Your task to perform on an android device: turn off picture-in-picture Image 0: 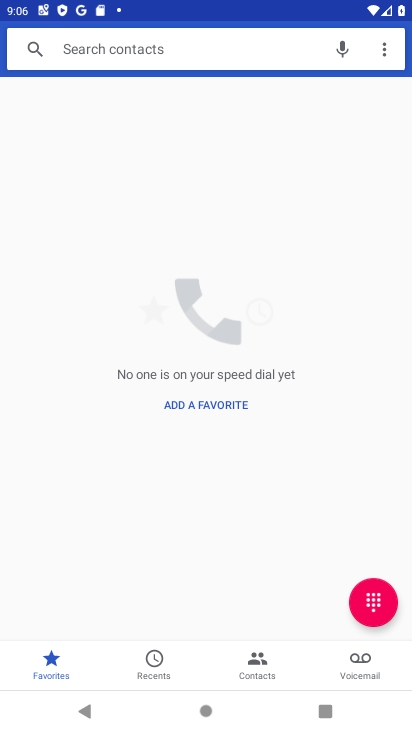
Step 0: press home button
Your task to perform on an android device: turn off picture-in-picture Image 1: 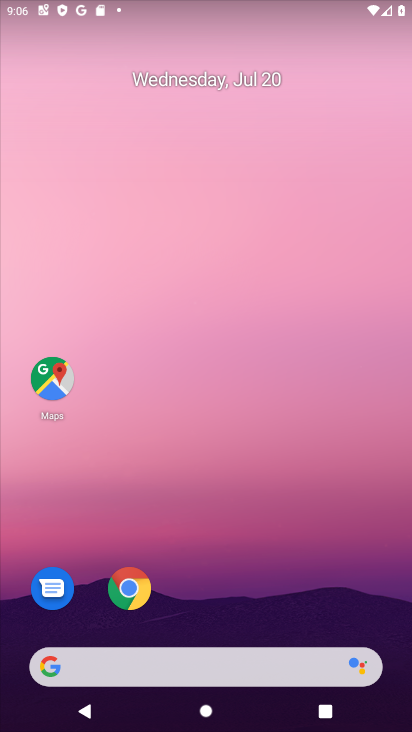
Step 1: drag from (242, 572) to (258, 82)
Your task to perform on an android device: turn off picture-in-picture Image 2: 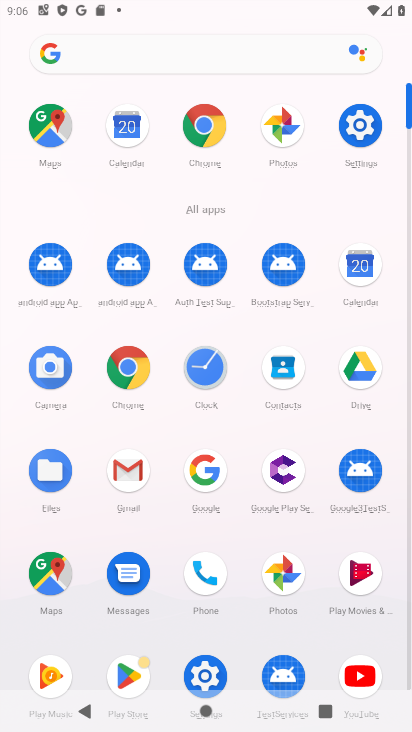
Step 2: click (370, 131)
Your task to perform on an android device: turn off picture-in-picture Image 3: 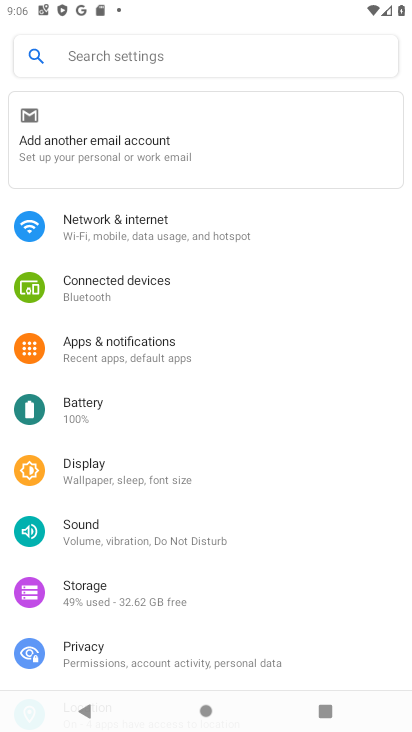
Step 3: click (113, 346)
Your task to perform on an android device: turn off picture-in-picture Image 4: 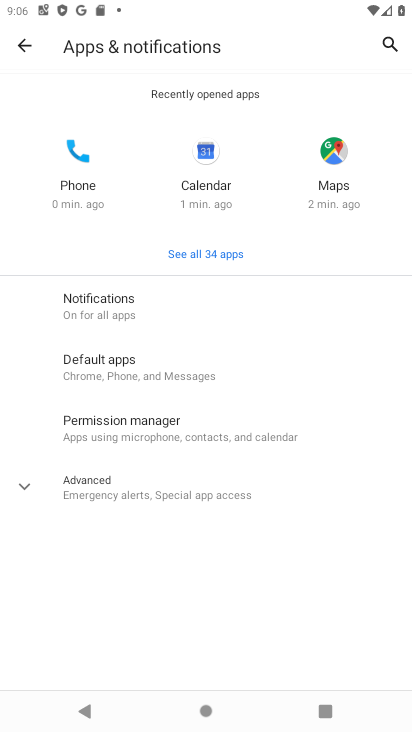
Step 4: click (122, 487)
Your task to perform on an android device: turn off picture-in-picture Image 5: 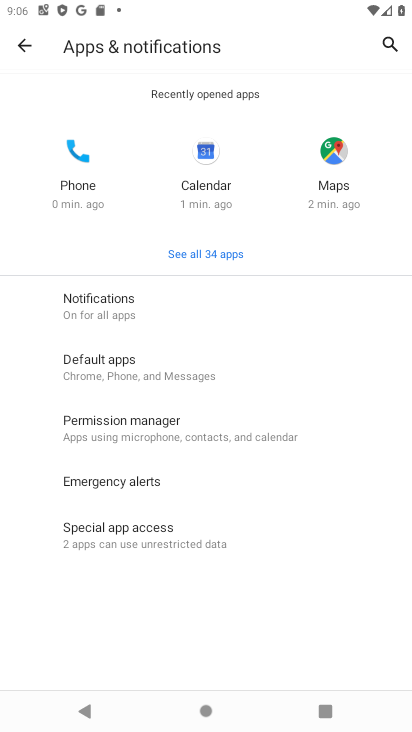
Step 5: click (110, 531)
Your task to perform on an android device: turn off picture-in-picture Image 6: 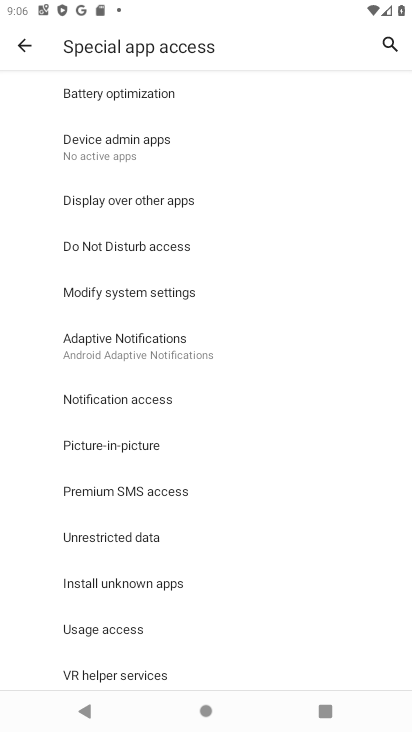
Step 6: click (126, 444)
Your task to perform on an android device: turn off picture-in-picture Image 7: 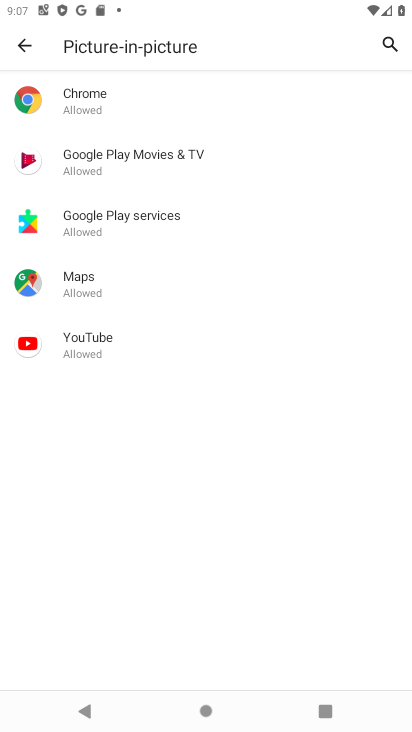
Step 7: click (118, 101)
Your task to perform on an android device: turn off picture-in-picture Image 8: 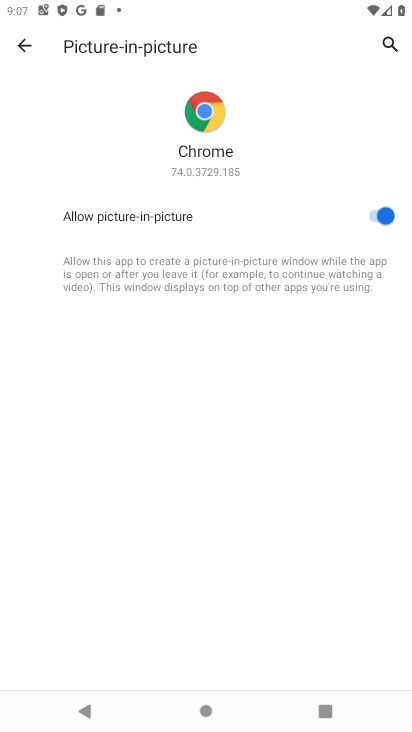
Step 8: click (376, 213)
Your task to perform on an android device: turn off picture-in-picture Image 9: 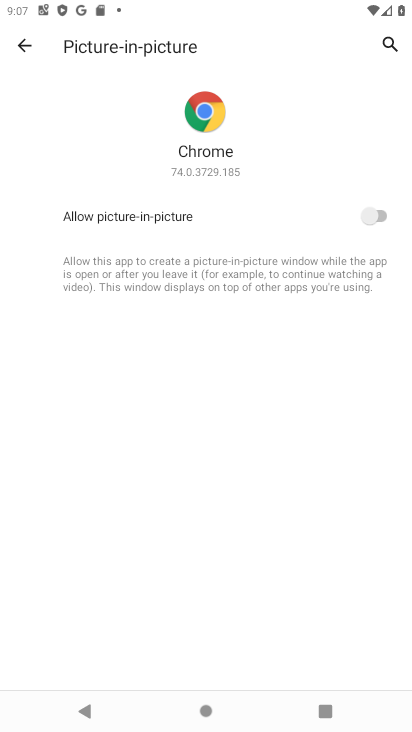
Step 9: press back button
Your task to perform on an android device: turn off picture-in-picture Image 10: 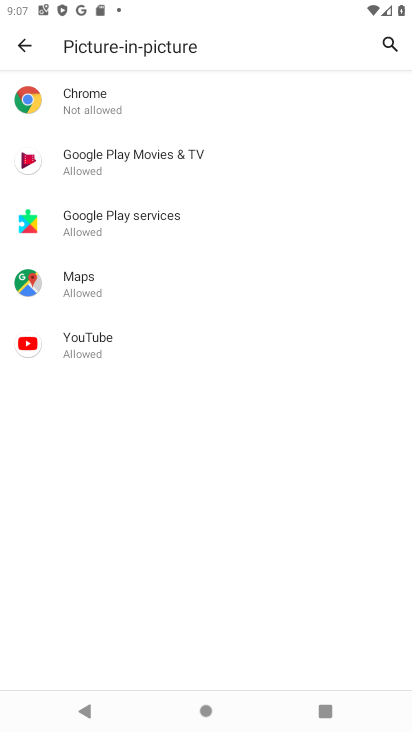
Step 10: click (160, 159)
Your task to perform on an android device: turn off picture-in-picture Image 11: 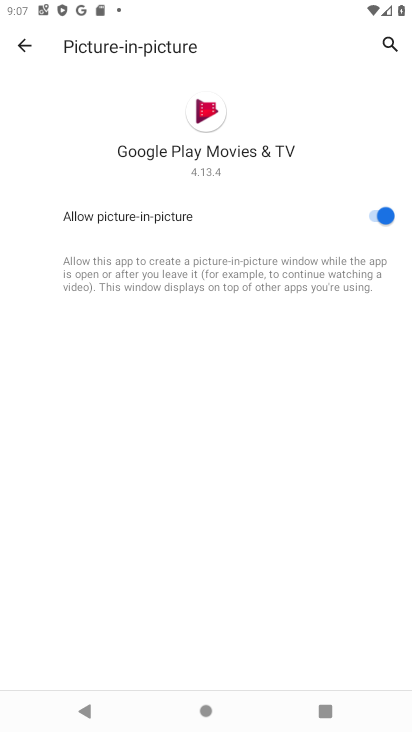
Step 11: click (380, 218)
Your task to perform on an android device: turn off picture-in-picture Image 12: 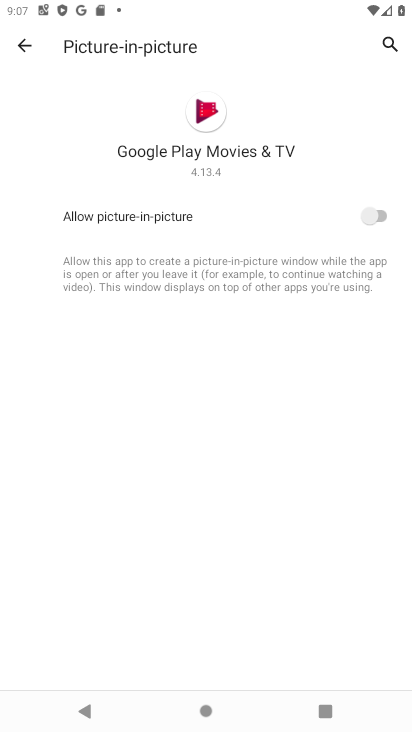
Step 12: press back button
Your task to perform on an android device: turn off picture-in-picture Image 13: 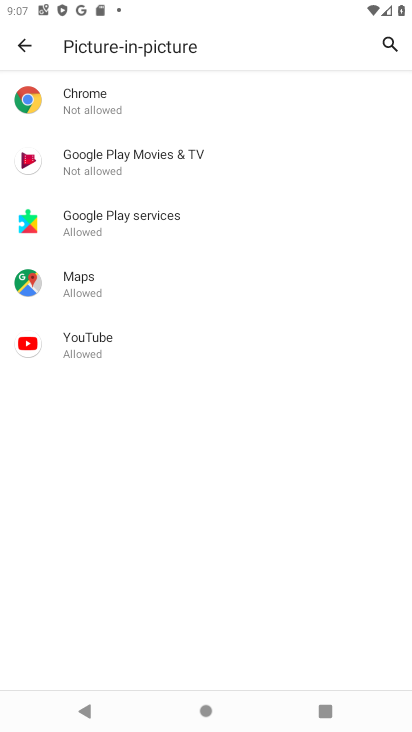
Step 13: click (261, 242)
Your task to perform on an android device: turn off picture-in-picture Image 14: 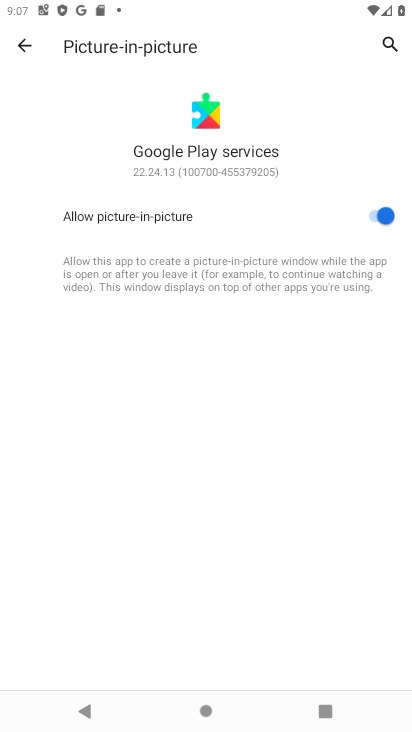
Step 14: click (380, 212)
Your task to perform on an android device: turn off picture-in-picture Image 15: 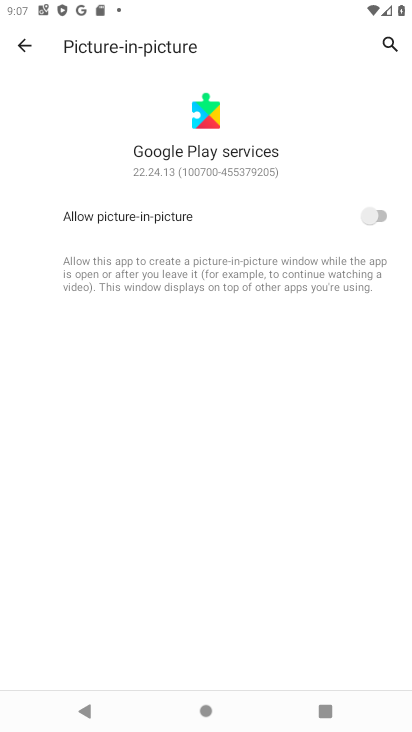
Step 15: press back button
Your task to perform on an android device: turn off picture-in-picture Image 16: 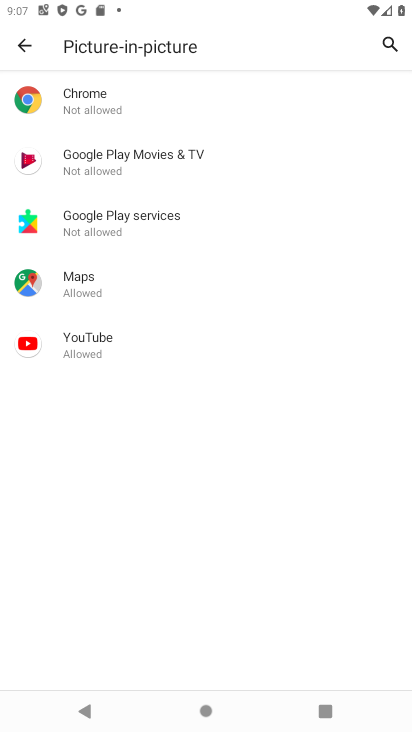
Step 16: click (349, 273)
Your task to perform on an android device: turn off picture-in-picture Image 17: 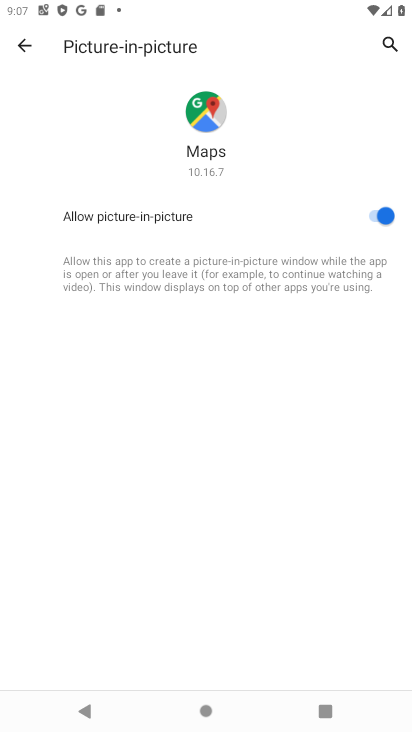
Step 17: click (384, 215)
Your task to perform on an android device: turn off picture-in-picture Image 18: 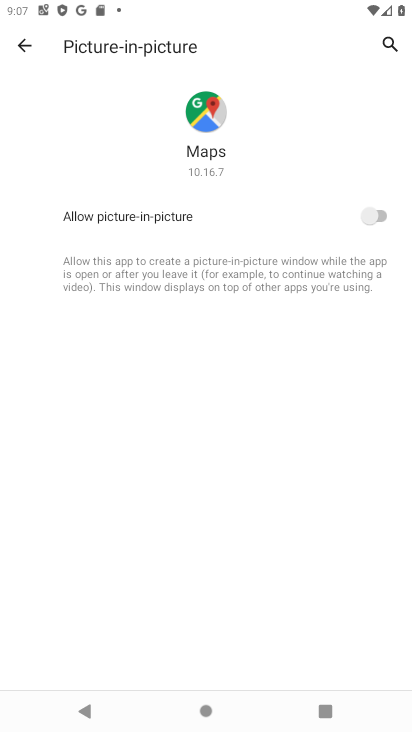
Step 18: press back button
Your task to perform on an android device: turn off picture-in-picture Image 19: 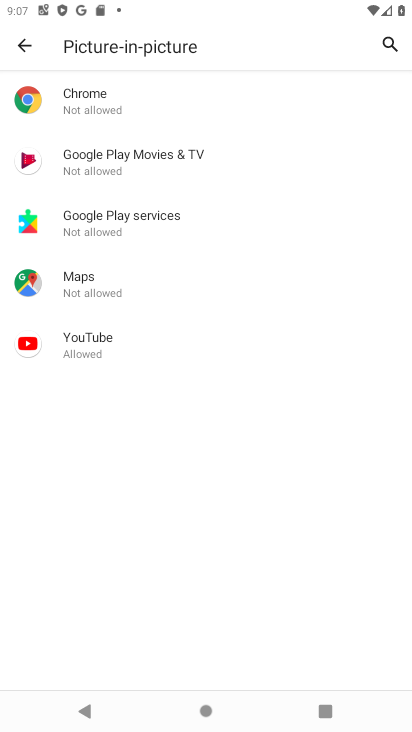
Step 19: click (311, 344)
Your task to perform on an android device: turn off picture-in-picture Image 20: 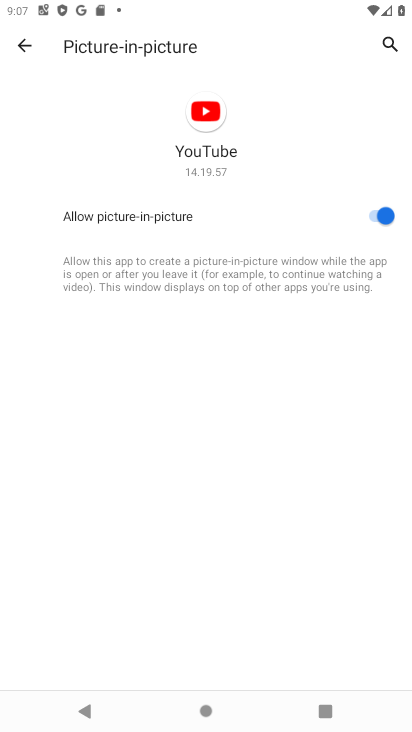
Step 20: click (367, 215)
Your task to perform on an android device: turn off picture-in-picture Image 21: 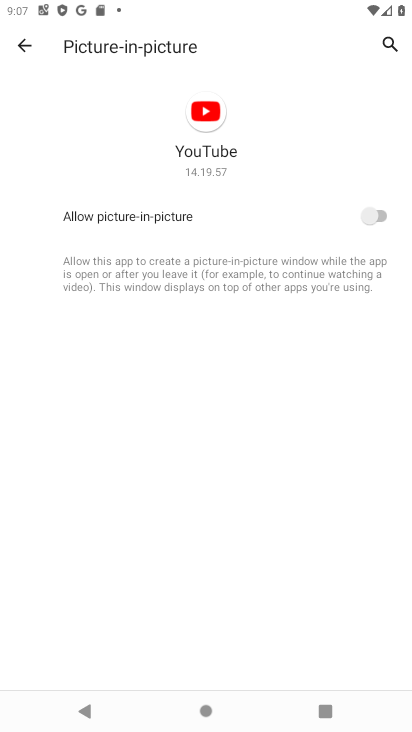
Step 21: task complete